Your task to perform on an android device: open app "Instagram" (install if not already installed) and enter user name: "nobler@yahoo.com" and password: "foraging" Image 0: 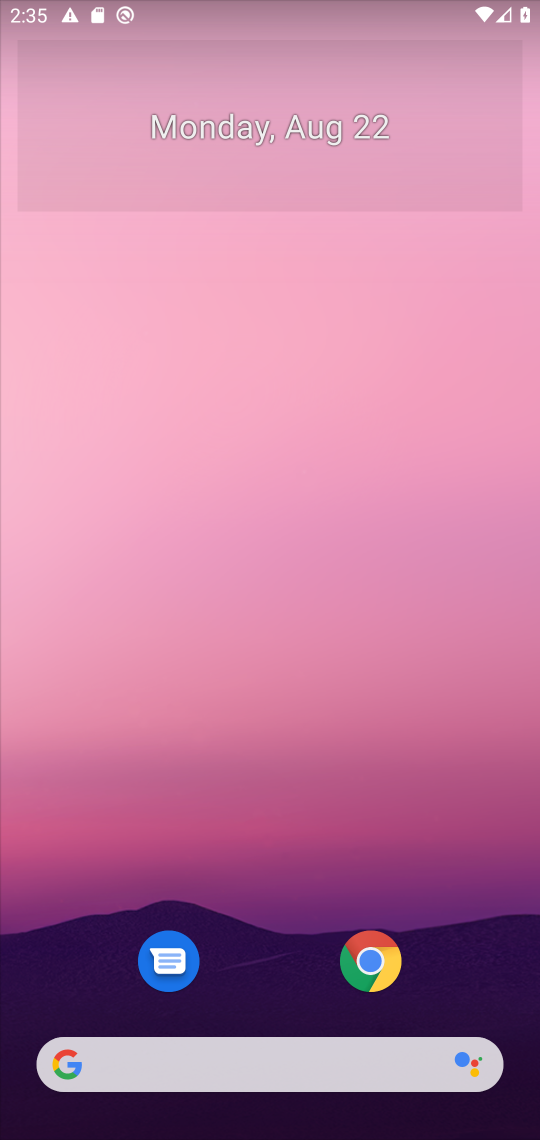
Step 0: press home button
Your task to perform on an android device: open app "Instagram" (install if not already installed) and enter user name: "nobler@yahoo.com" and password: "foraging" Image 1: 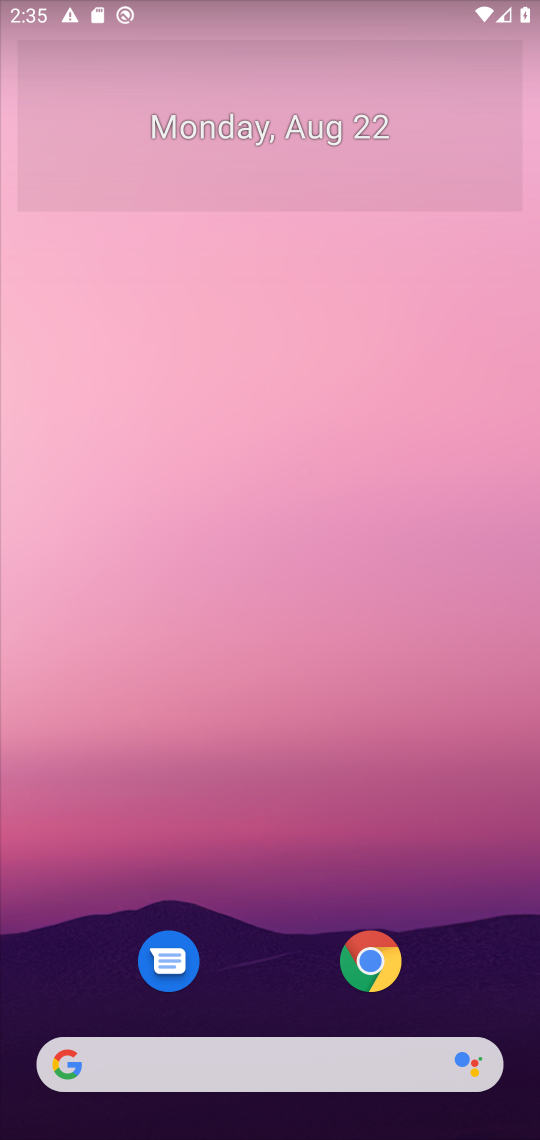
Step 1: drag from (473, 997) to (465, 205)
Your task to perform on an android device: open app "Instagram" (install if not already installed) and enter user name: "nobler@yahoo.com" and password: "foraging" Image 2: 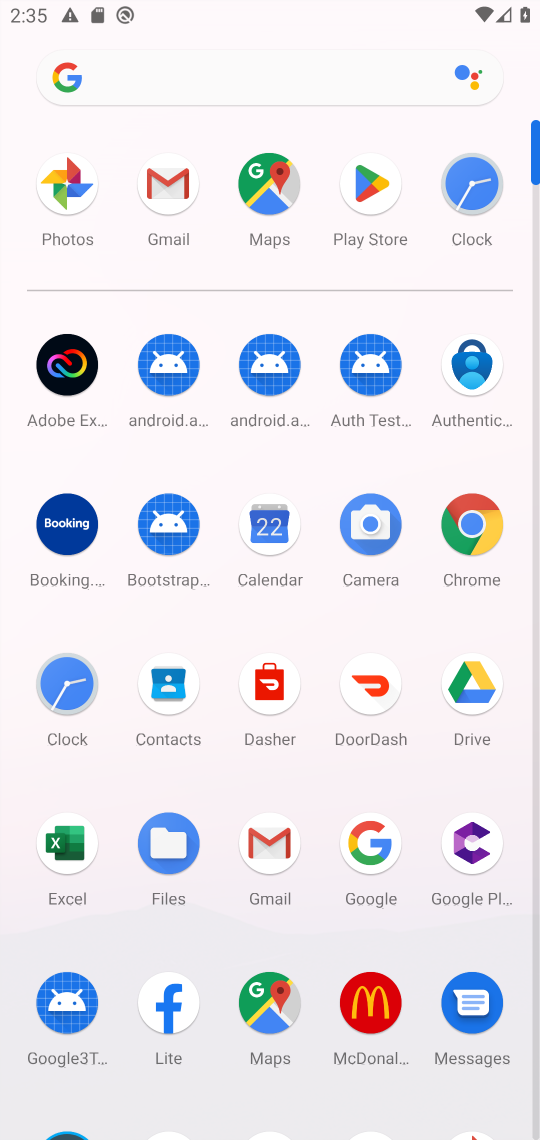
Step 2: click (367, 197)
Your task to perform on an android device: open app "Instagram" (install if not already installed) and enter user name: "nobler@yahoo.com" and password: "foraging" Image 3: 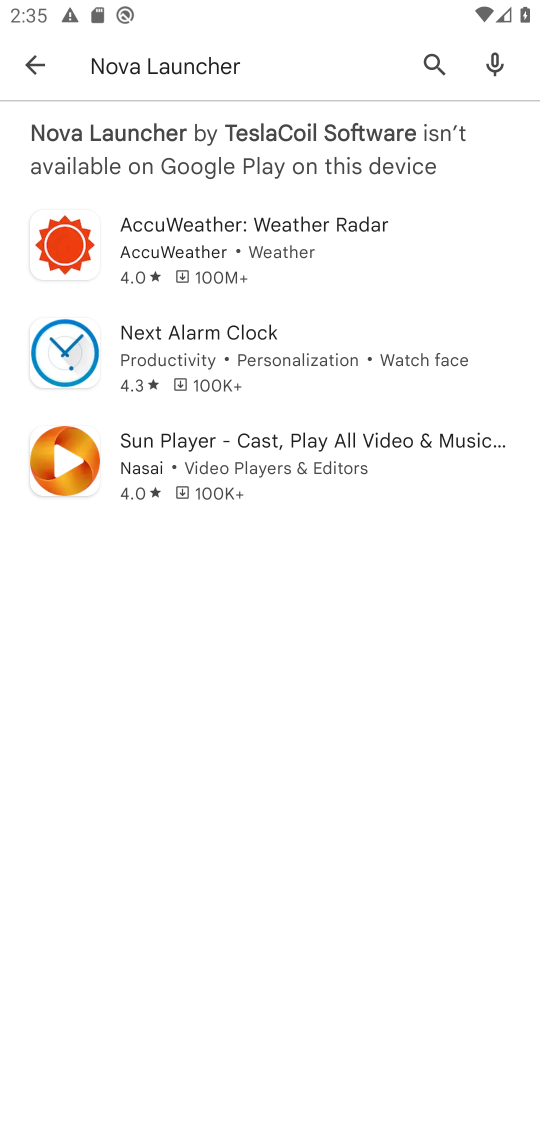
Step 3: press back button
Your task to perform on an android device: open app "Instagram" (install if not already installed) and enter user name: "nobler@yahoo.com" and password: "foraging" Image 4: 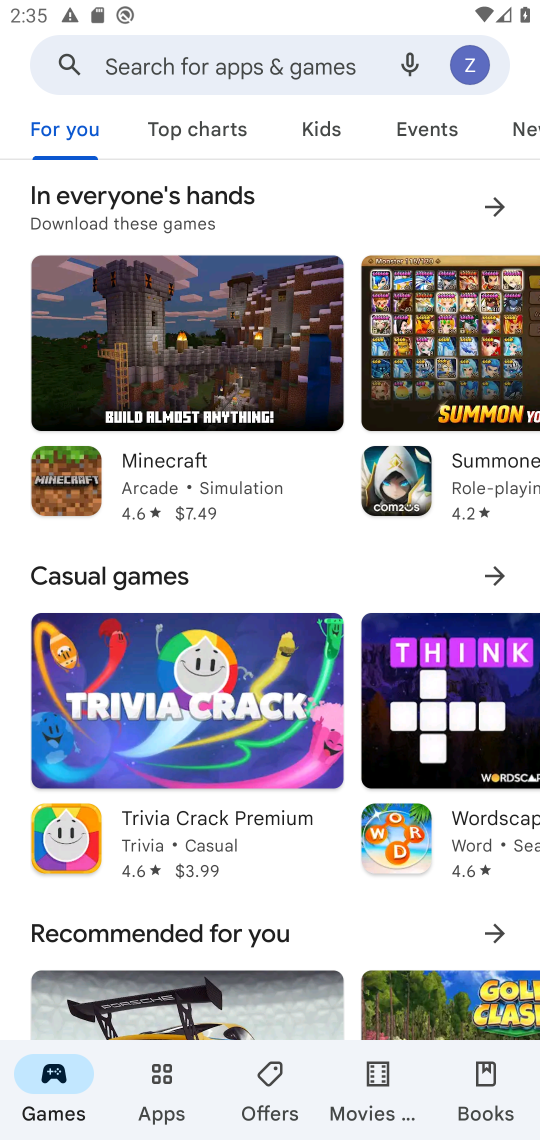
Step 4: click (287, 67)
Your task to perform on an android device: open app "Instagram" (install if not already installed) and enter user name: "nobler@yahoo.com" and password: "foraging" Image 5: 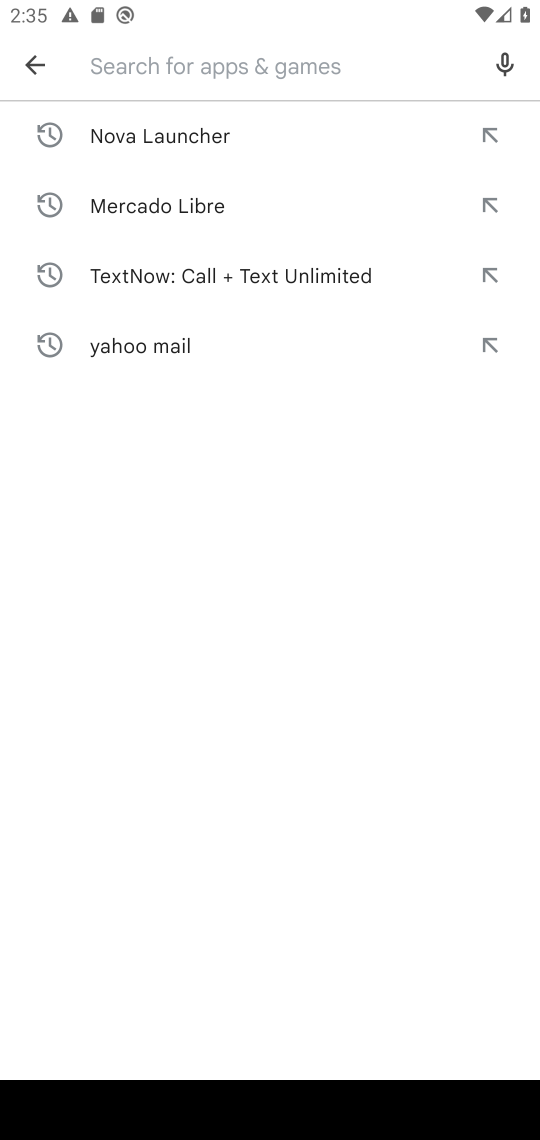
Step 5: type "Instagram"
Your task to perform on an android device: open app "Instagram" (install if not already installed) and enter user name: "nobler@yahoo.com" and password: "foraging" Image 6: 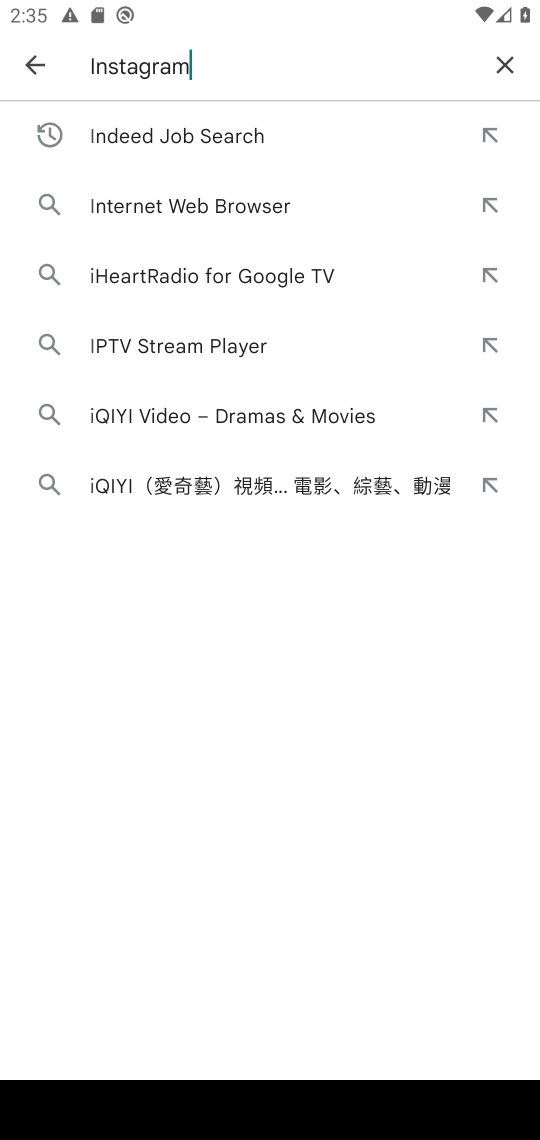
Step 6: press enter
Your task to perform on an android device: open app "Instagram" (install if not already installed) and enter user name: "nobler@yahoo.com" and password: "foraging" Image 7: 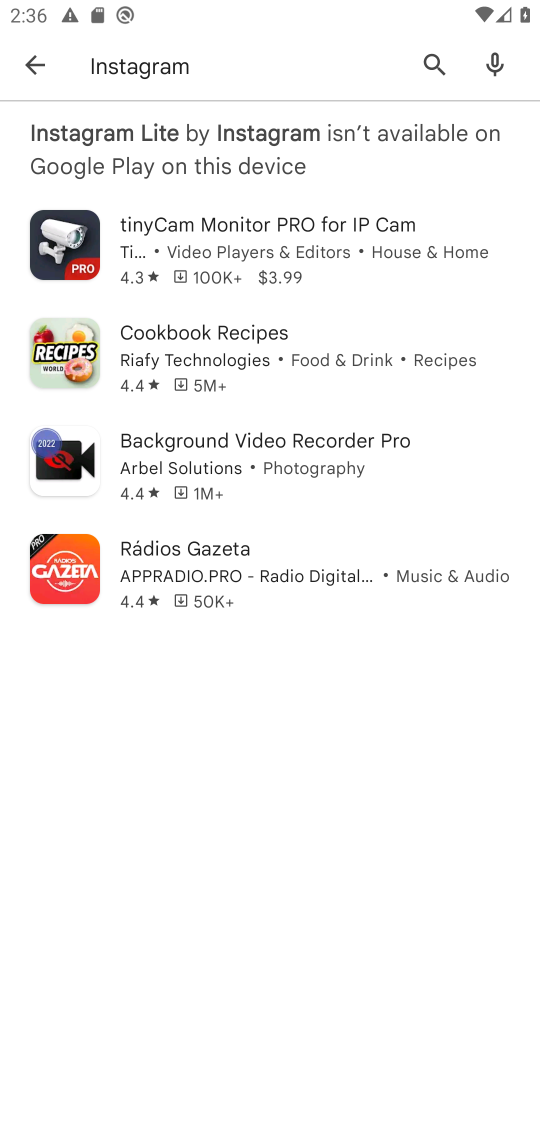
Step 7: task complete